Your task to perform on an android device: Show me the alarms in the clock app Image 0: 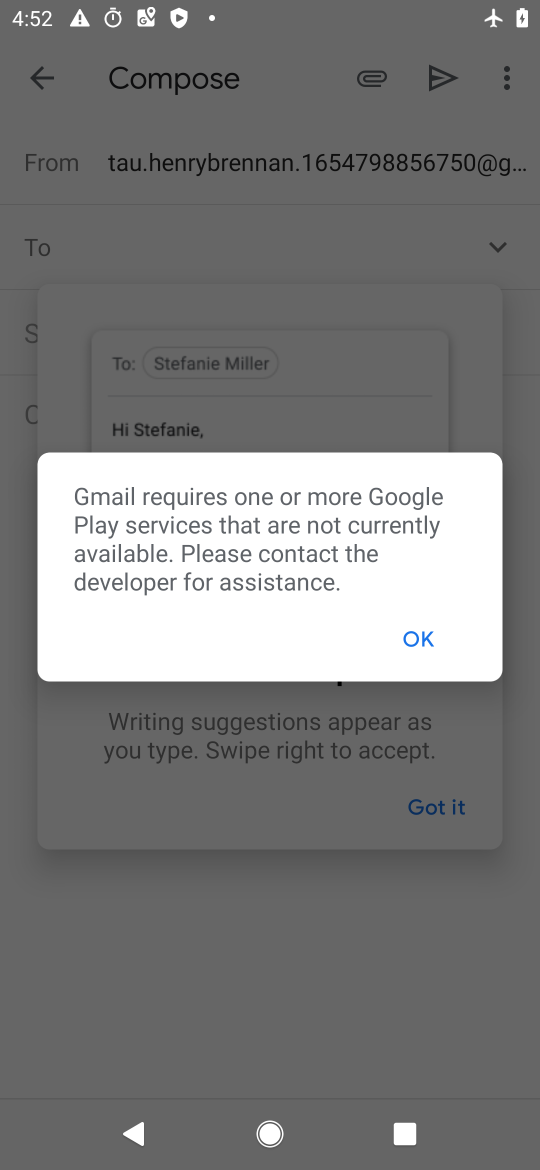
Step 0: press home button
Your task to perform on an android device: Show me the alarms in the clock app Image 1: 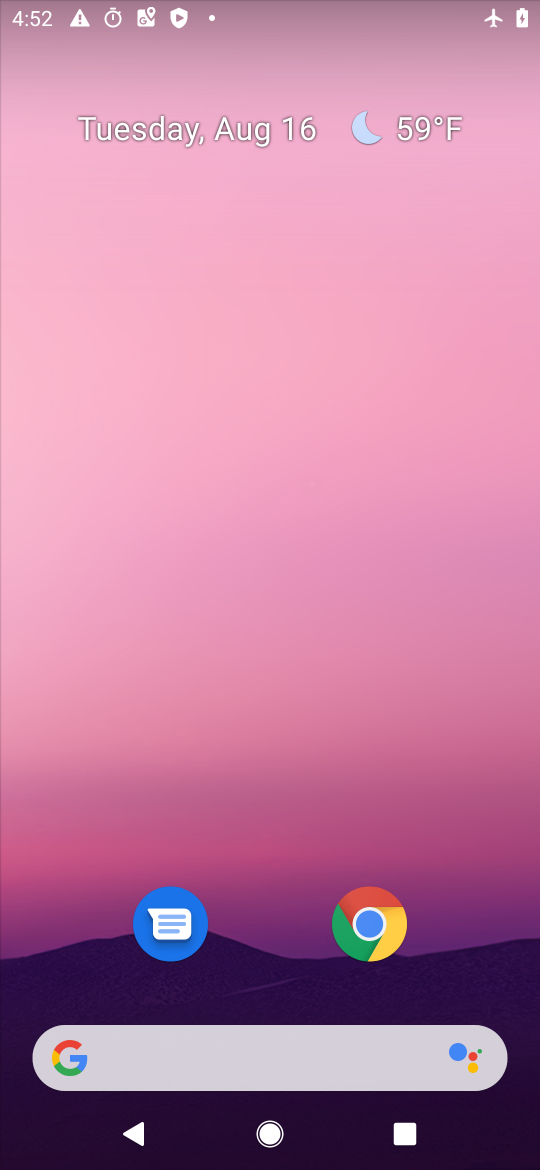
Step 1: drag from (262, 993) to (217, 82)
Your task to perform on an android device: Show me the alarms in the clock app Image 2: 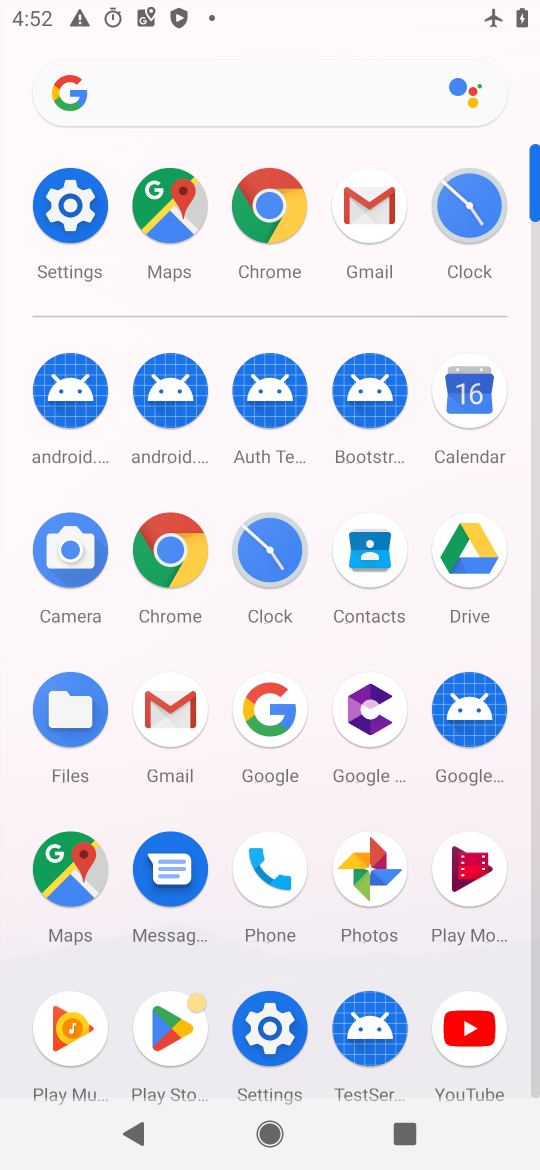
Step 2: click (447, 259)
Your task to perform on an android device: Show me the alarms in the clock app Image 3: 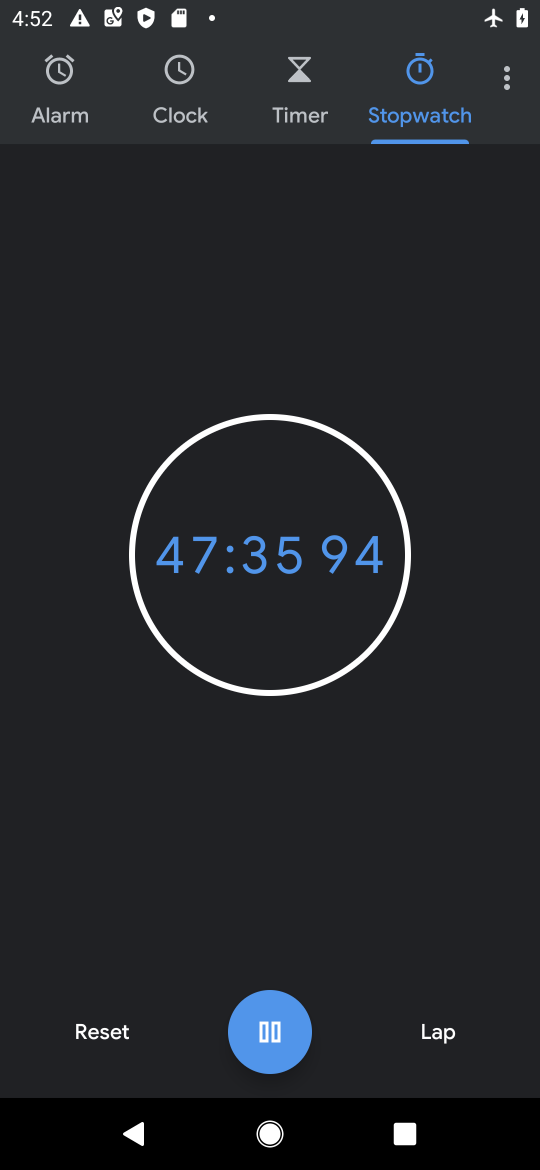
Step 3: click (83, 105)
Your task to perform on an android device: Show me the alarms in the clock app Image 4: 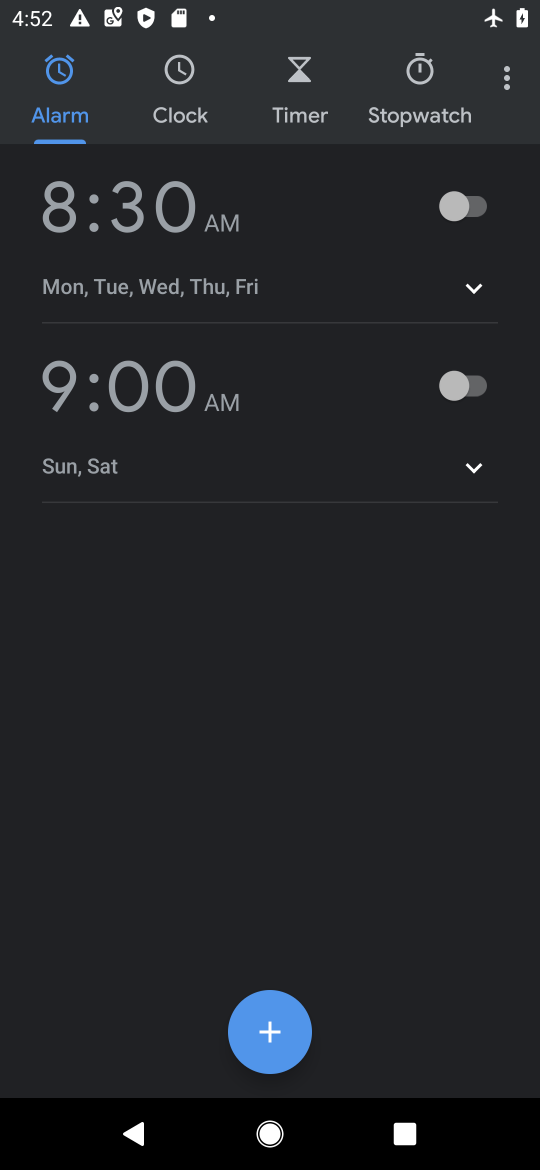
Step 4: task complete